Your task to perform on an android device: turn on the 12-hour format for clock Image 0: 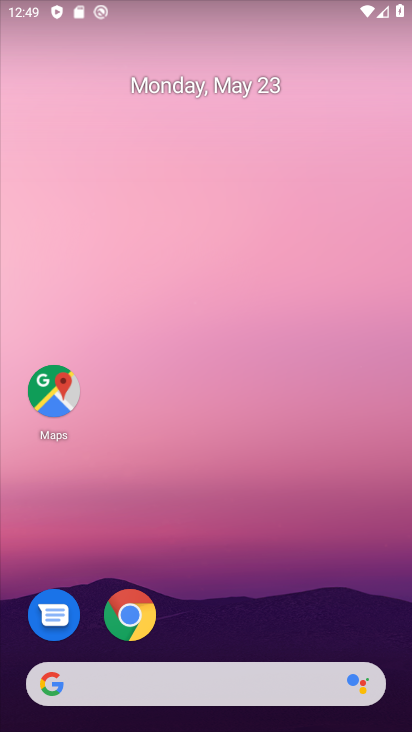
Step 0: drag from (214, 655) to (161, 61)
Your task to perform on an android device: turn on the 12-hour format for clock Image 1: 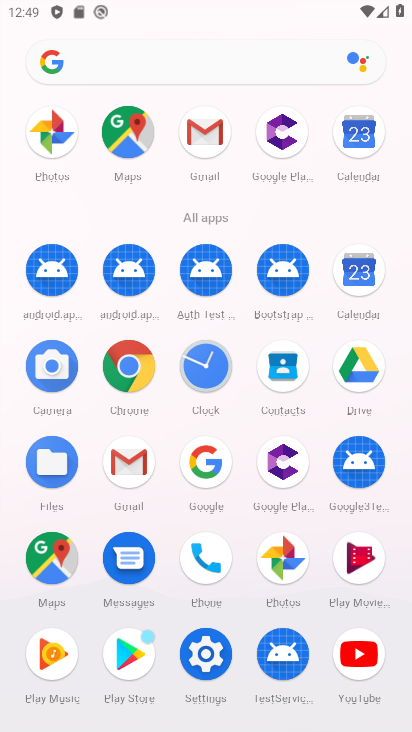
Step 1: click (204, 385)
Your task to perform on an android device: turn on the 12-hour format for clock Image 2: 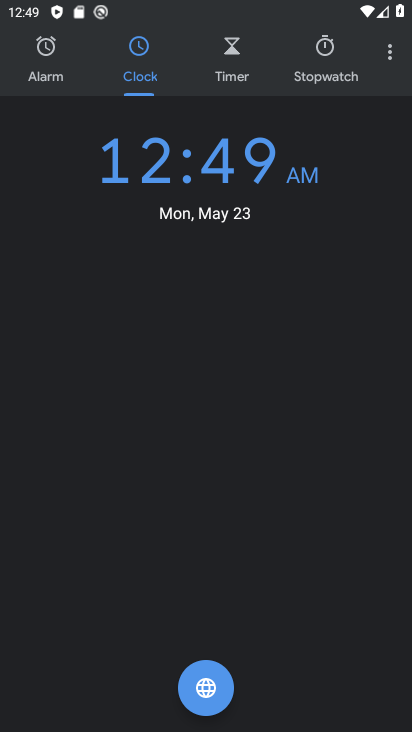
Step 2: click (397, 39)
Your task to perform on an android device: turn on the 12-hour format for clock Image 3: 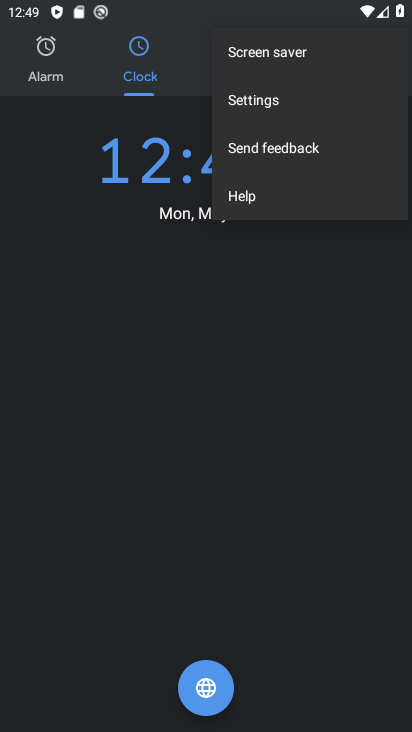
Step 3: click (259, 112)
Your task to perform on an android device: turn on the 12-hour format for clock Image 4: 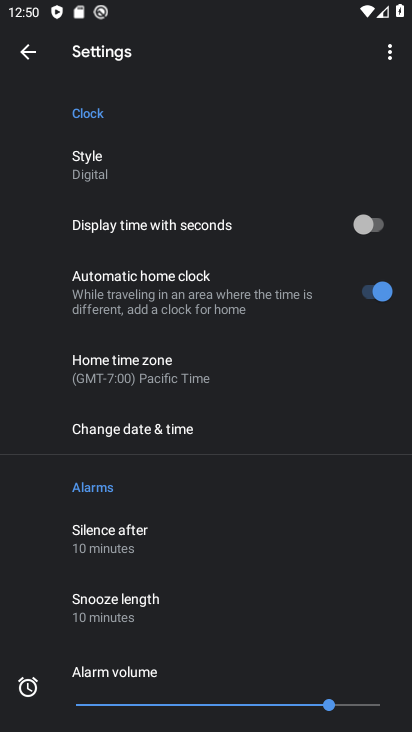
Step 4: click (179, 419)
Your task to perform on an android device: turn on the 12-hour format for clock Image 5: 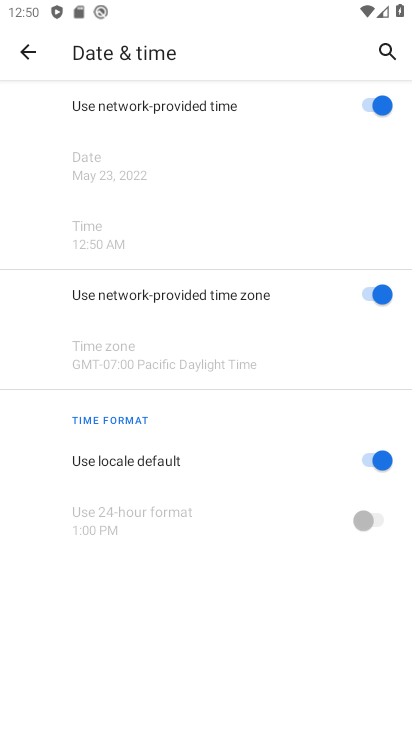
Step 5: task complete